Your task to perform on an android device: Go to Maps Image 0: 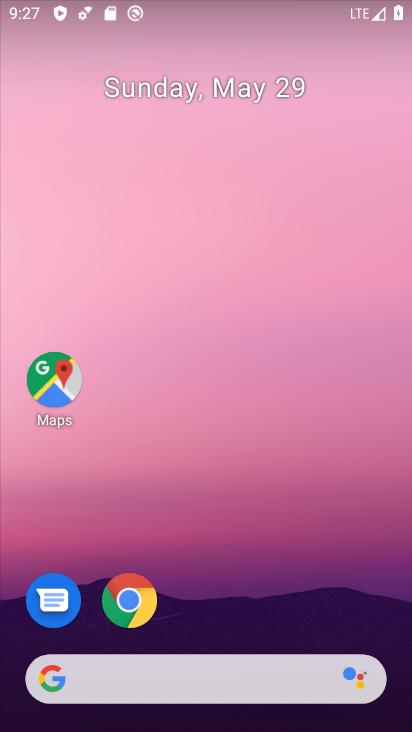
Step 0: click (41, 370)
Your task to perform on an android device: Go to Maps Image 1: 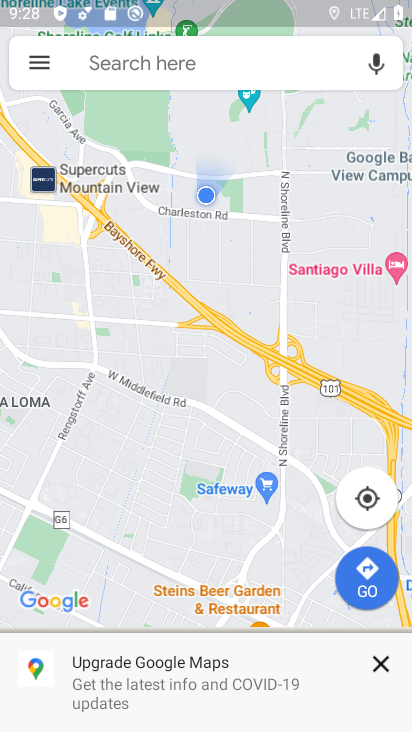
Step 1: task complete